Your task to perform on an android device: open a new tab in the chrome app Image 0: 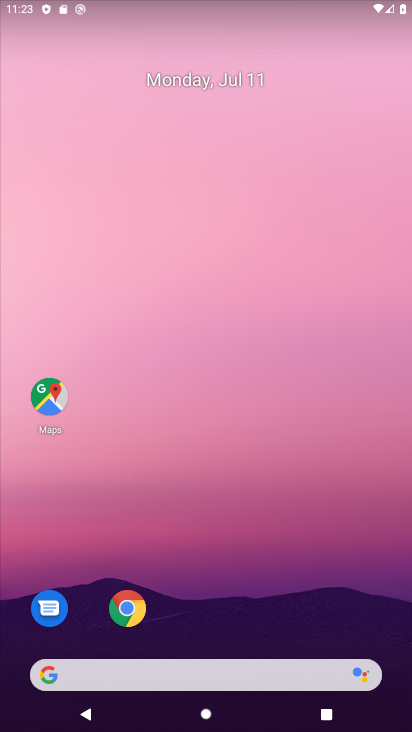
Step 0: click (129, 597)
Your task to perform on an android device: open a new tab in the chrome app Image 1: 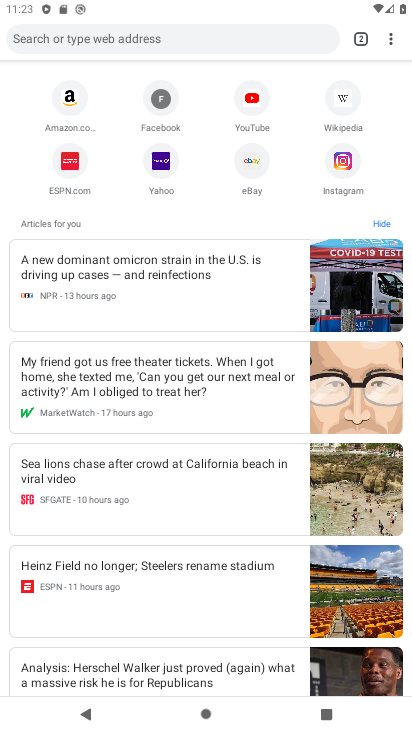
Step 1: click (360, 38)
Your task to perform on an android device: open a new tab in the chrome app Image 2: 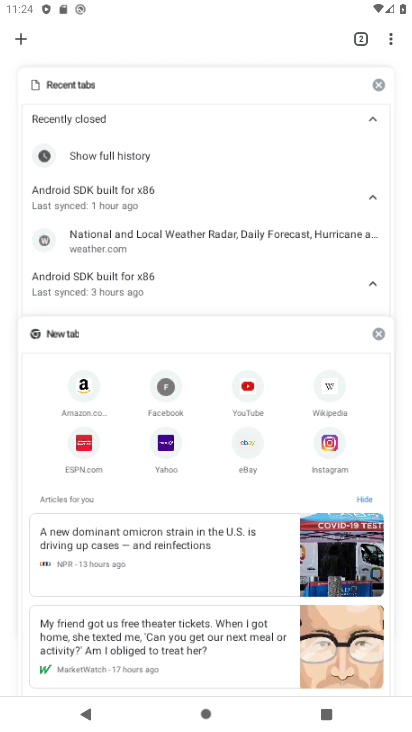
Step 2: click (23, 43)
Your task to perform on an android device: open a new tab in the chrome app Image 3: 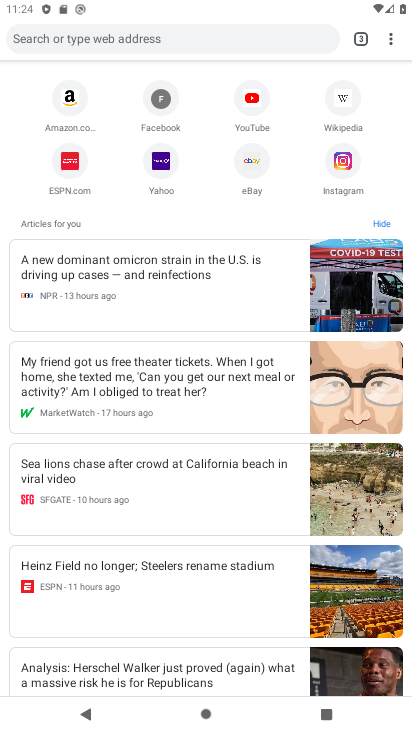
Step 3: task complete